Your task to perform on an android device: turn off translation in the chrome app Image 0: 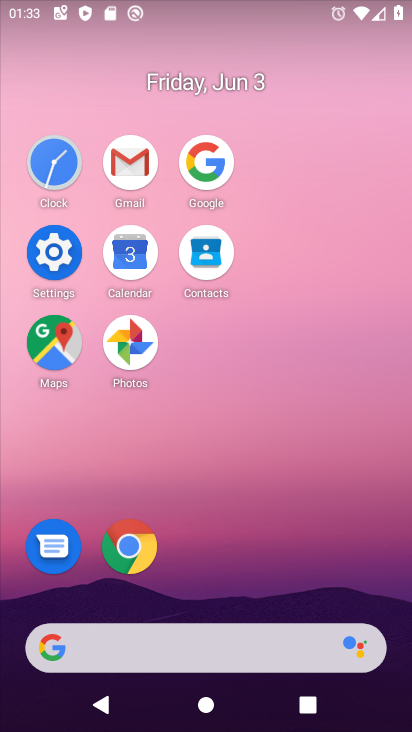
Step 0: click (36, 250)
Your task to perform on an android device: turn off translation in the chrome app Image 1: 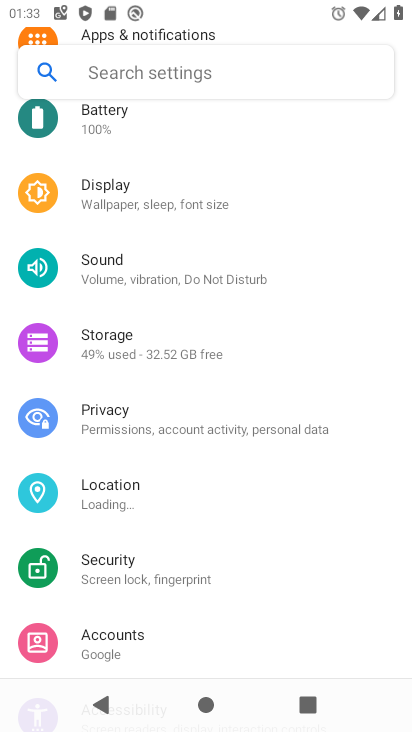
Step 1: press home button
Your task to perform on an android device: turn off translation in the chrome app Image 2: 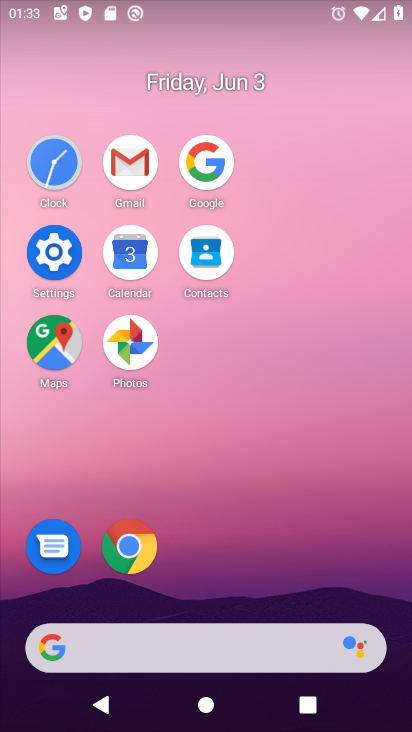
Step 2: click (137, 537)
Your task to perform on an android device: turn off translation in the chrome app Image 3: 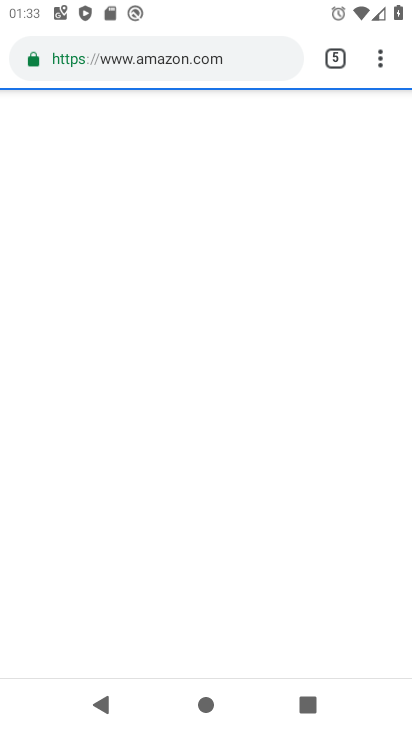
Step 3: click (377, 48)
Your task to perform on an android device: turn off translation in the chrome app Image 4: 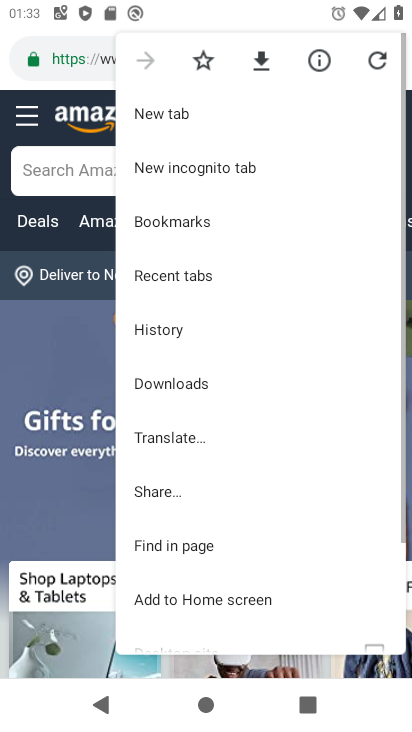
Step 4: drag from (267, 446) to (277, 109)
Your task to perform on an android device: turn off translation in the chrome app Image 5: 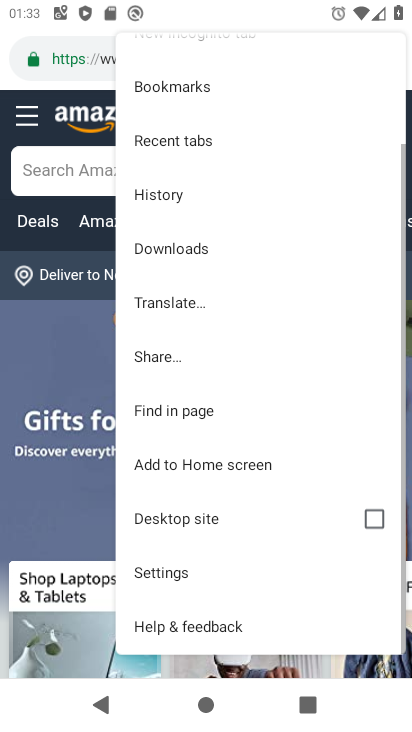
Step 5: click (240, 569)
Your task to perform on an android device: turn off translation in the chrome app Image 6: 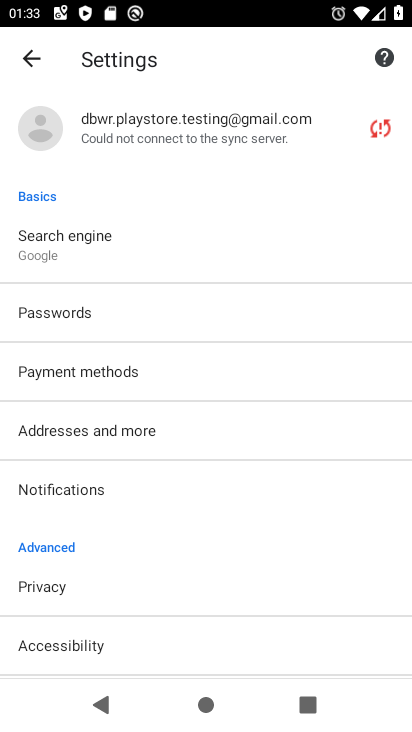
Step 6: drag from (152, 621) to (207, 223)
Your task to perform on an android device: turn off translation in the chrome app Image 7: 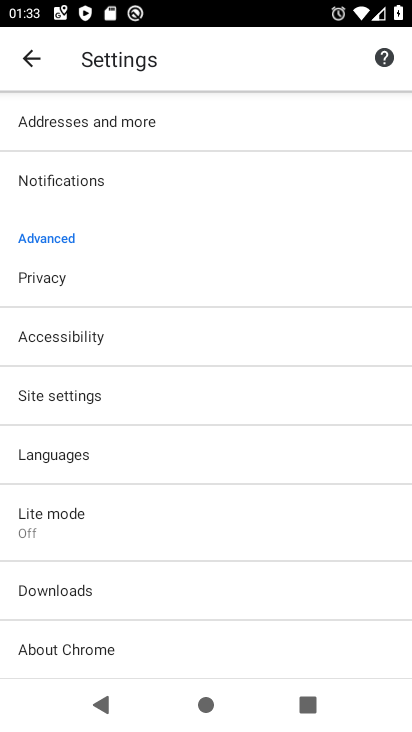
Step 7: drag from (184, 294) to (188, 215)
Your task to perform on an android device: turn off translation in the chrome app Image 8: 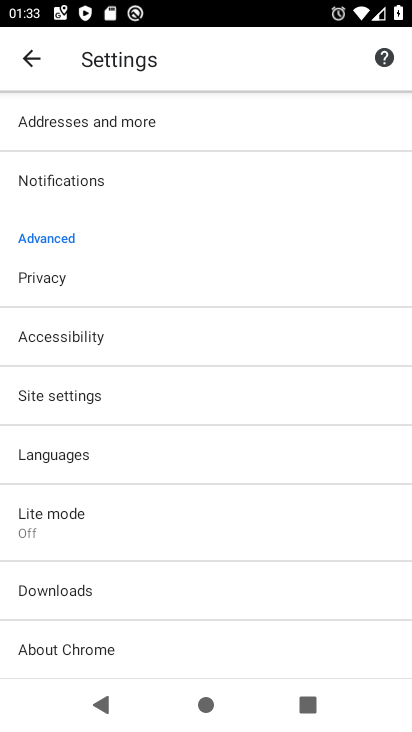
Step 8: click (108, 467)
Your task to perform on an android device: turn off translation in the chrome app Image 9: 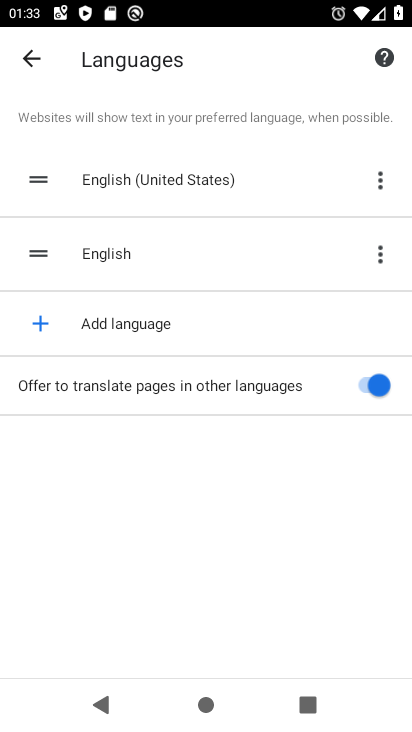
Step 9: click (386, 399)
Your task to perform on an android device: turn off translation in the chrome app Image 10: 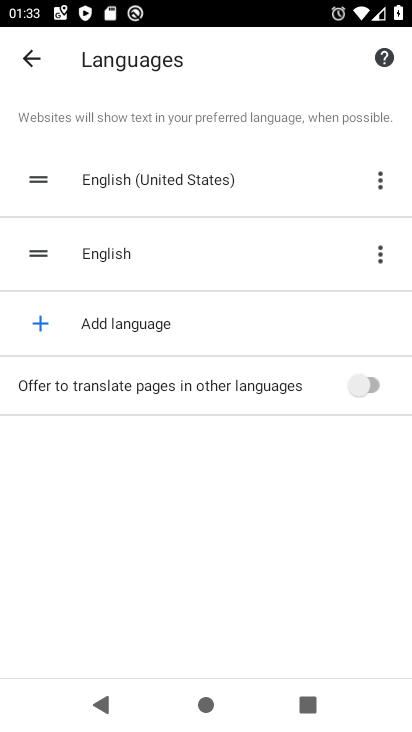
Step 10: task complete